Your task to perform on an android device: Open Google Chrome and open the bookmarks view Image 0: 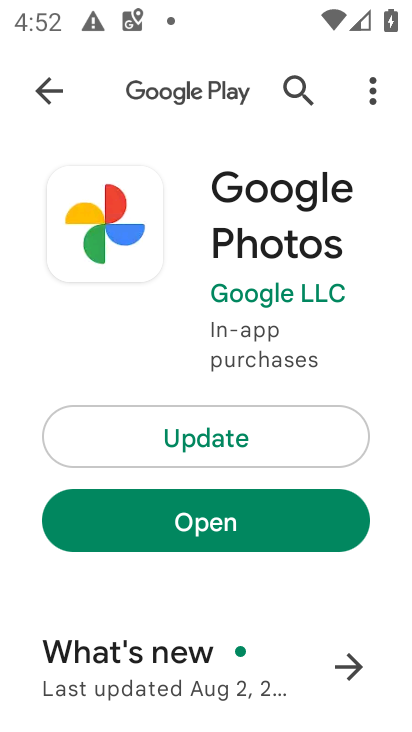
Step 0: press home button
Your task to perform on an android device: Open Google Chrome and open the bookmarks view Image 1: 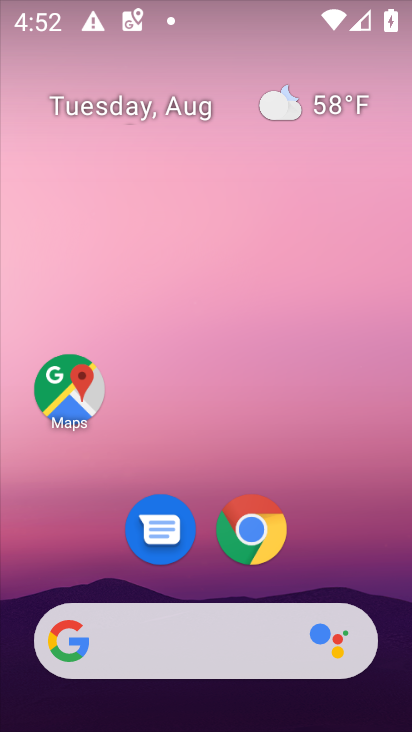
Step 1: click (263, 522)
Your task to perform on an android device: Open Google Chrome and open the bookmarks view Image 2: 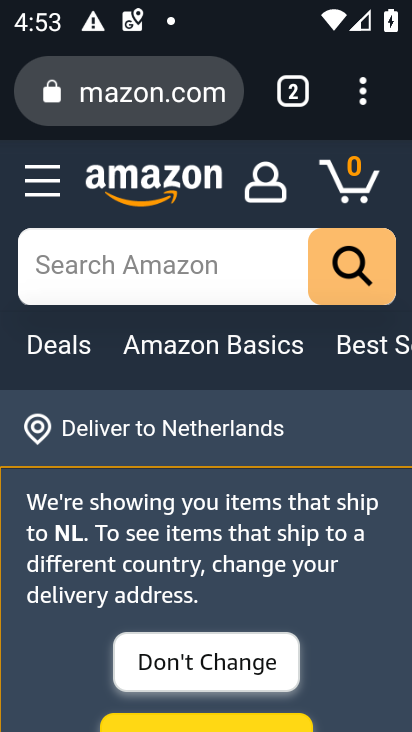
Step 2: click (362, 88)
Your task to perform on an android device: Open Google Chrome and open the bookmarks view Image 3: 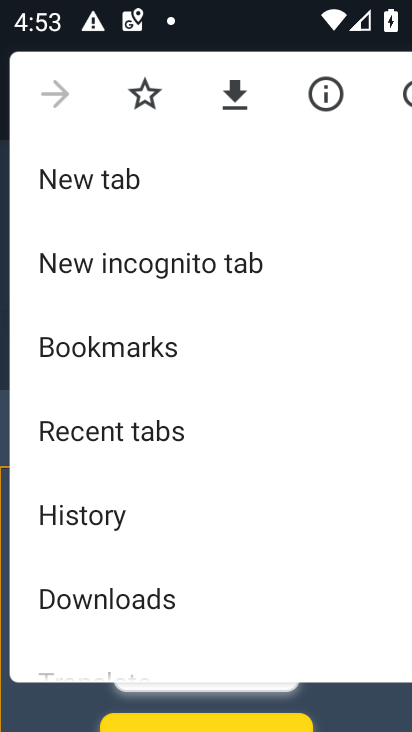
Step 3: click (147, 355)
Your task to perform on an android device: Open Google Chrome and open the bookmarks view Image 4: 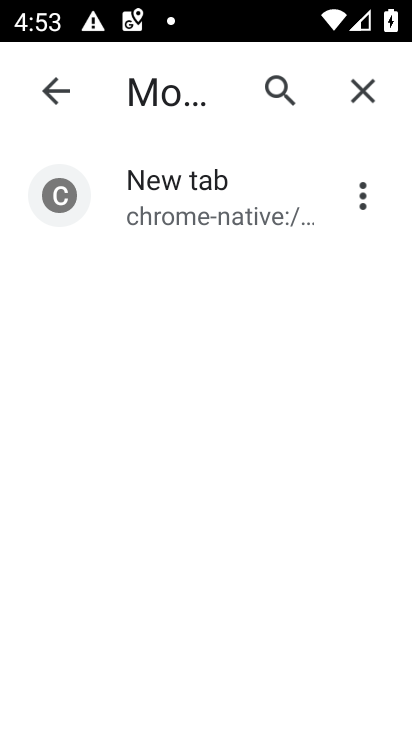
Step 4: task complete